Your task to perform on an android device: check android version Image 0: 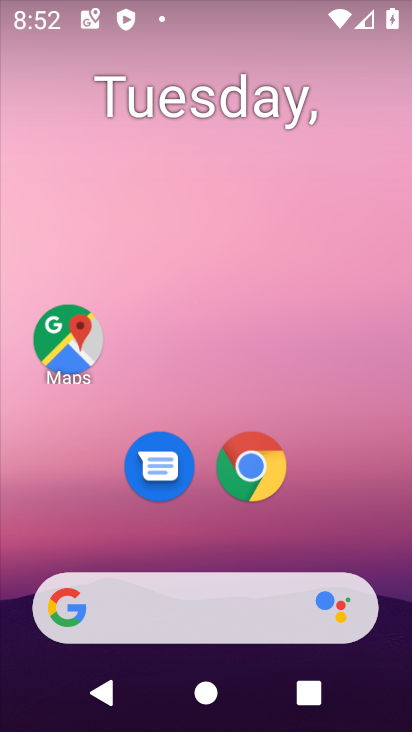
Step 0: drag from (365, 508) to (359, 231)
Your task to perform on an android device: check android version Image 1: 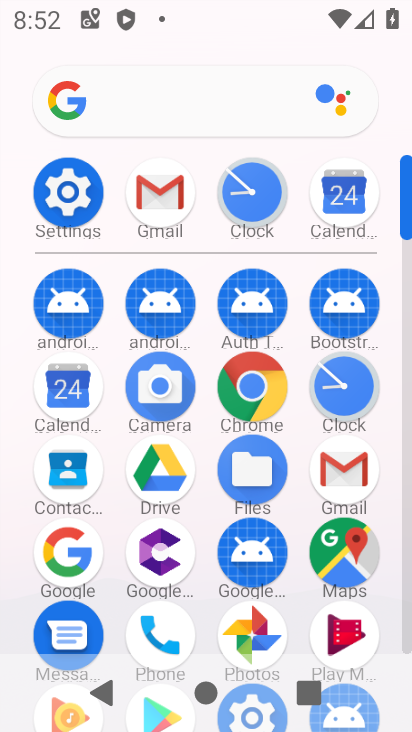
Step 1: click (64, 194)
Your task to perform on an android device: check android version Image 2: 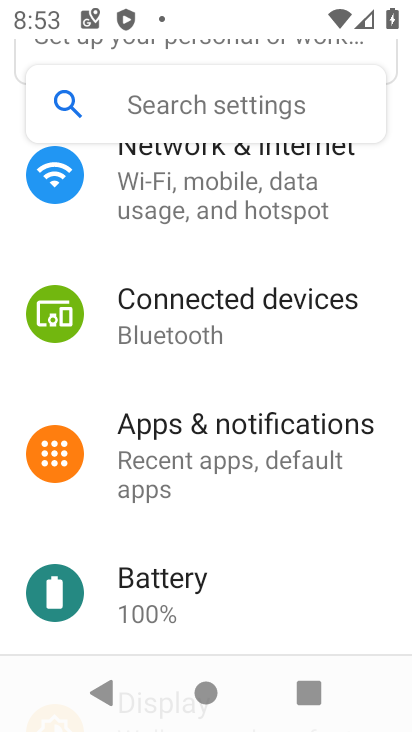
Step 2: drag from (247, 596) to (282, 306)
Your task to perform on an android device: check android version Image 3: 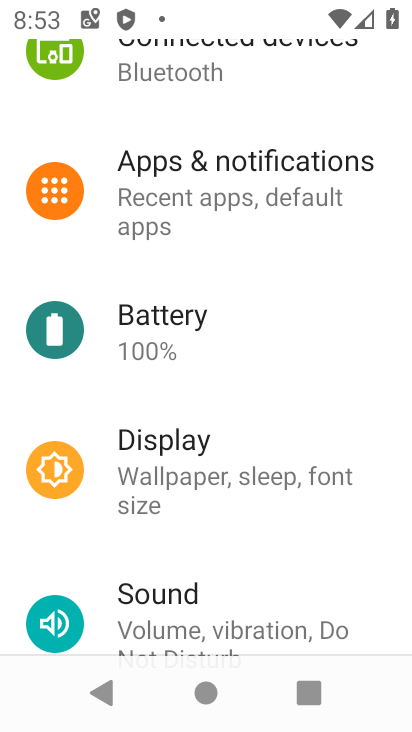
Step 3: press home button
Your task to perform on an android device: check android version Image 4: 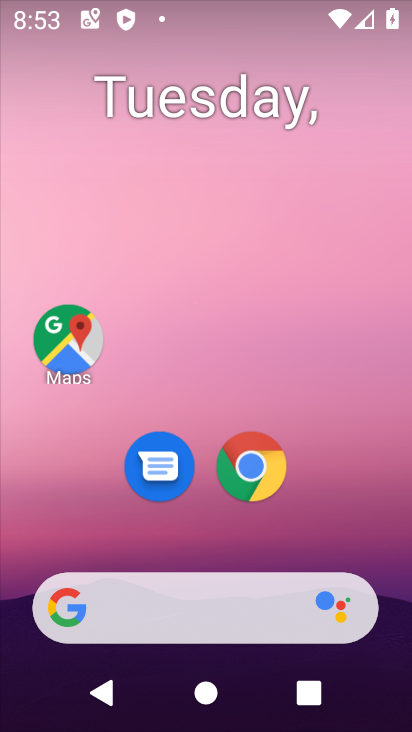
Step 4: click (371, 514)
Your task to perform on an android device: check android version Image 5: 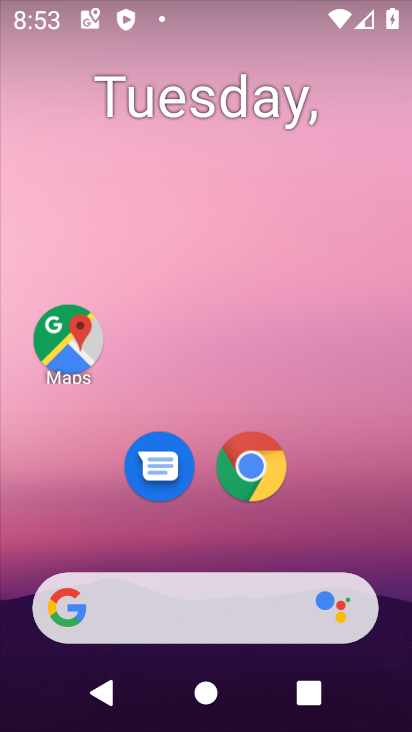
Step 5: drag from (371, 514) to (378, 121)
Your task to perform on an android device: check android version Image 6: 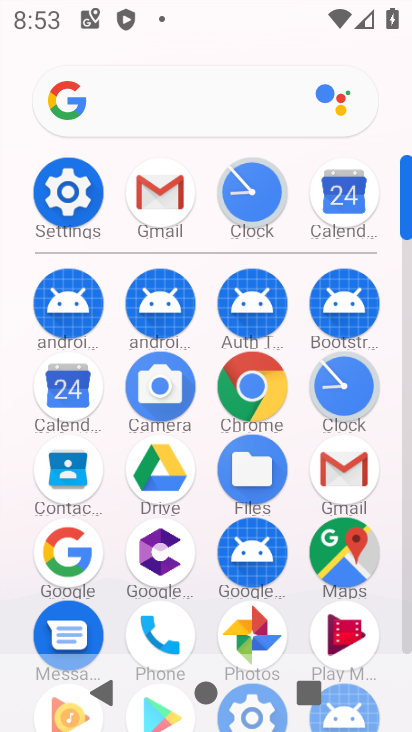
Step 6: click (80, 221)
Your task to perform on an android device: check android version Image 7: 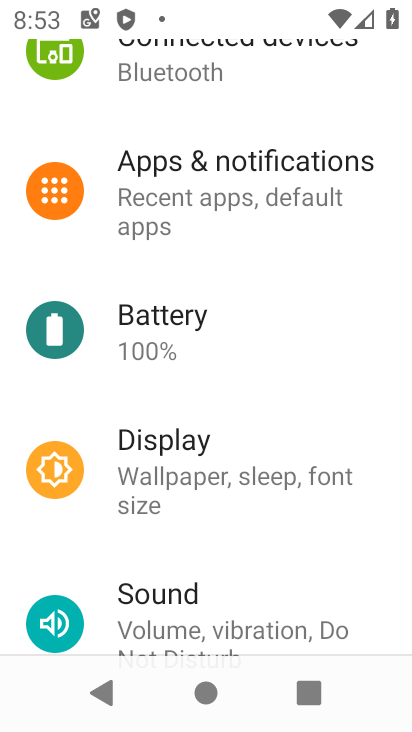
Step 7: drag from (216, 598) to (318, 9)
Your task to perform on an android device: check android version Image 8: 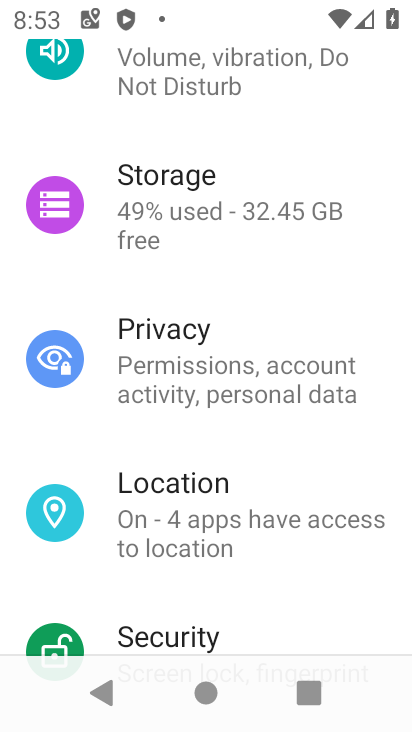
Step 8: drag from (275, 610) to (304, 100)
Your task to perform on an android device: check android version Image 9: 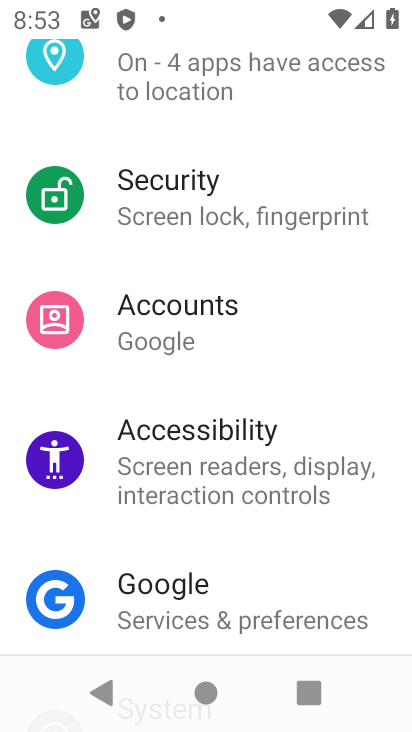
Step 9: drag from (240, 564) to (266, 211)
Your task to perform on an android device: check android version Image 10: 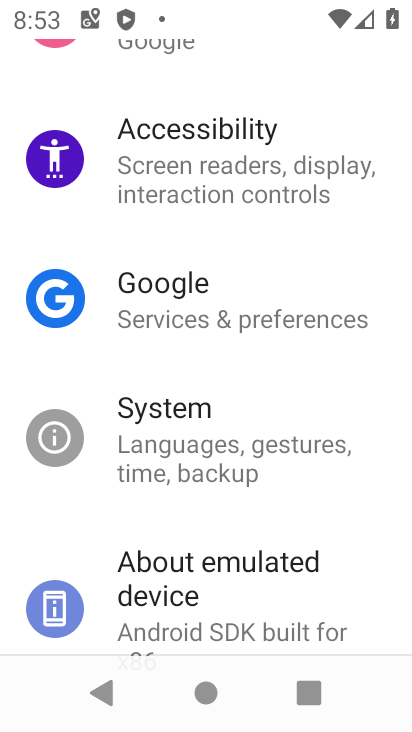
Step 10: drag from (201, 605) to (259, 251)
Your task to perform on an android device: check android version Image 11: 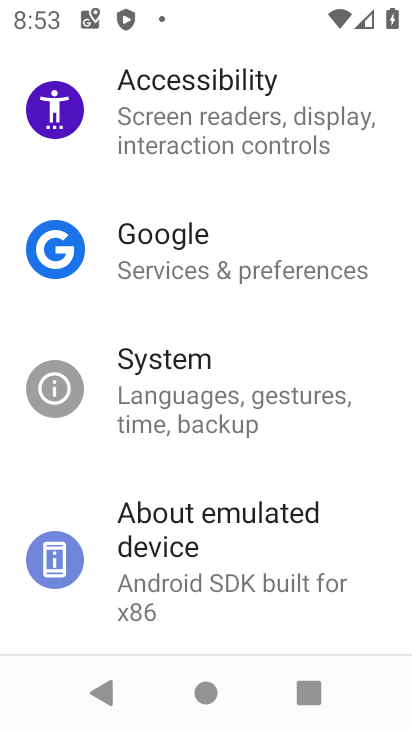
Step 11: click (232, 534)
Your task to perform on an android device: check android version Image 12: 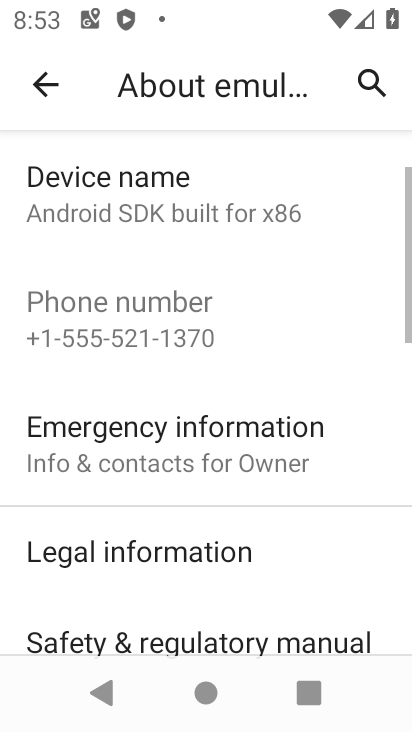
Step 12: drag from (247, 566) to (264, 217)
Your task to perform on an android device: check android version Image 13: 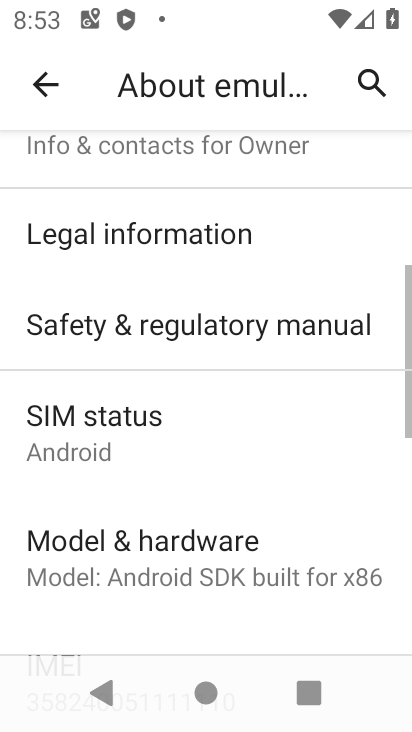
Step 13: drag from (128, 556) to (219, 305)
Your task to perform on an android device: check android version Image 14: 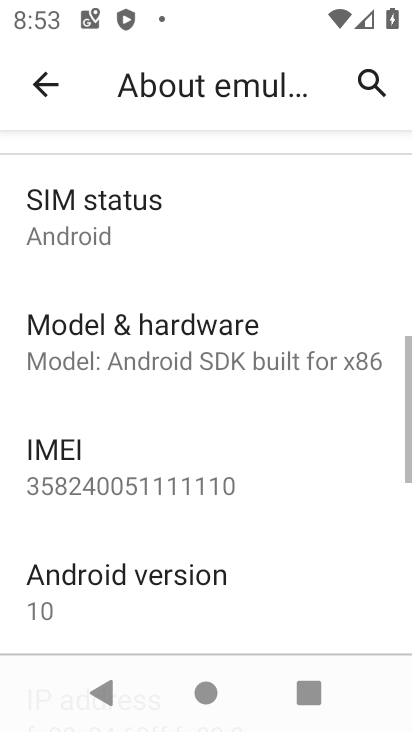
Step 14: click (221, 576)
Your task to perform on an android device: check android version Image 15: 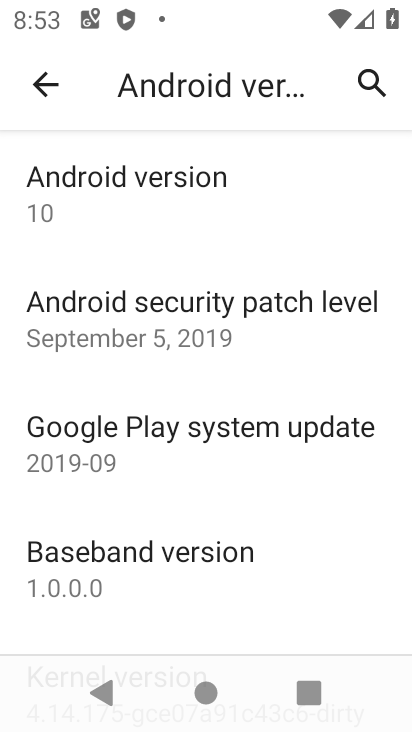
Step 15: task complete